Your task to perform on an android device: Open the stopwatch Image 0: 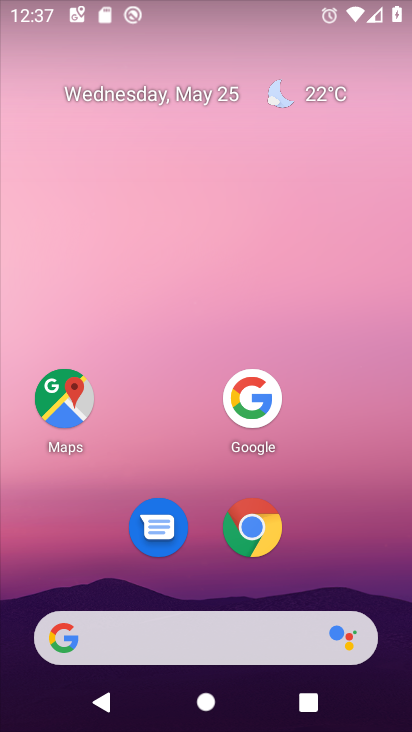
Step 0: press home button
Your task to perform on an android device: Open the stopwatch Image 1: 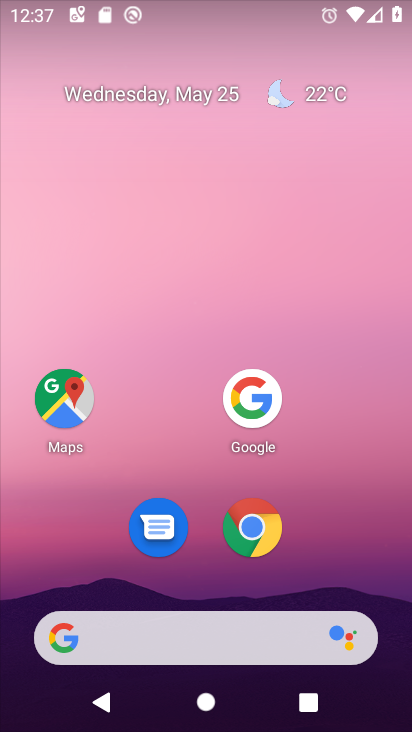
Step 1: drag from (222, 603) to (279, 140)
Your task to perform on an android device: Open the stopwatch Image 2: 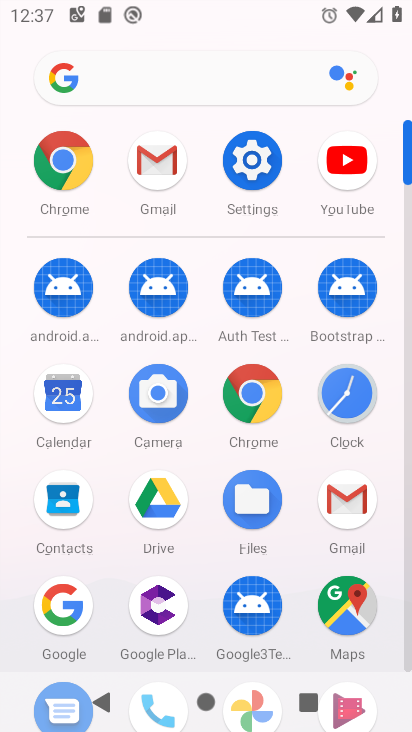
Step 2: click (353, 407)
Your task to perform on an android device: Open the stopwatch Image 3: 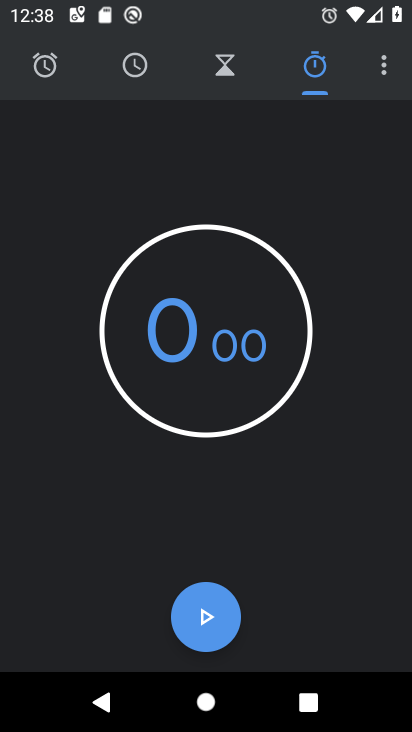
Step 3: task complete